Your task to perform on an android device: Go to notification settings Image 0: 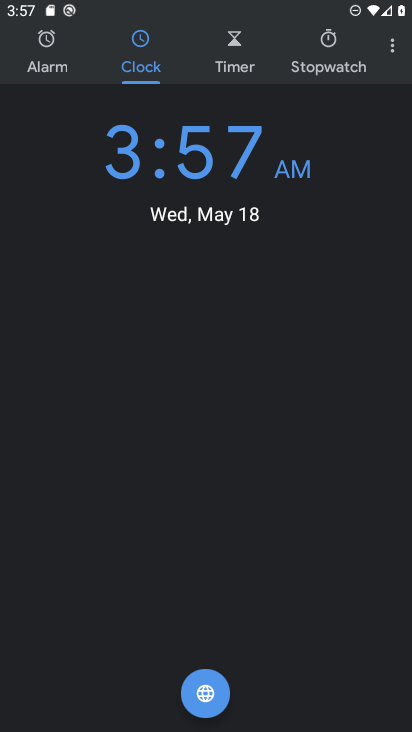
Step 0: press home button
Your task to perform on an android device: Go to notification settings Image 1: 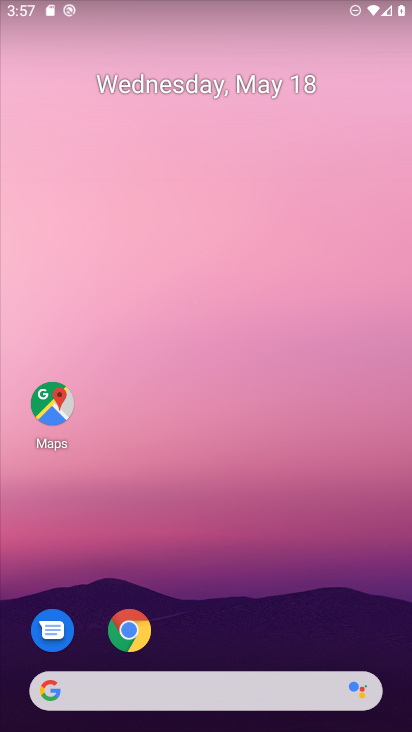
Step 1: drag from (218, 648) to (276, 214)
Your task to perform on an android device: Go to notification settings Image 2: 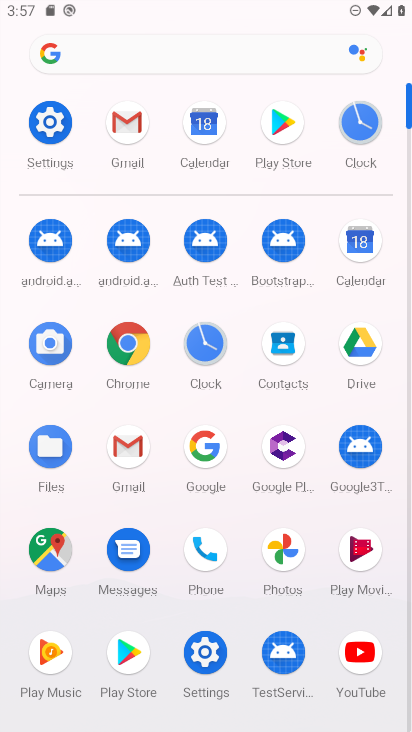
Step 2: click (46, 115)
Your task to perform on an android device: Go to notification settings Image 3: 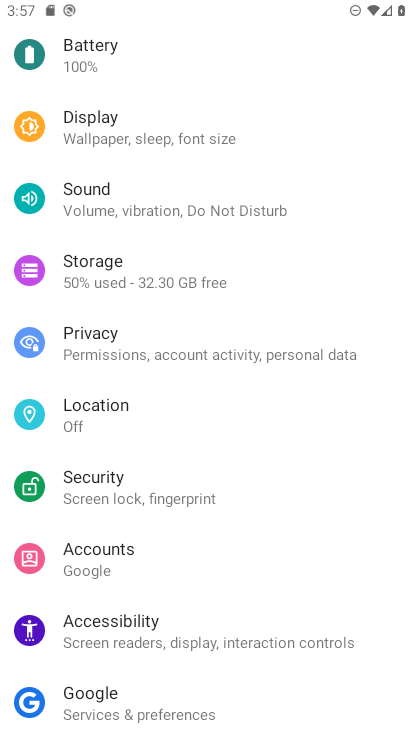
Step 3: drag from (147, 97) to (131, 710)
Your task to perform on an android device: Go to notification settings Image 4: 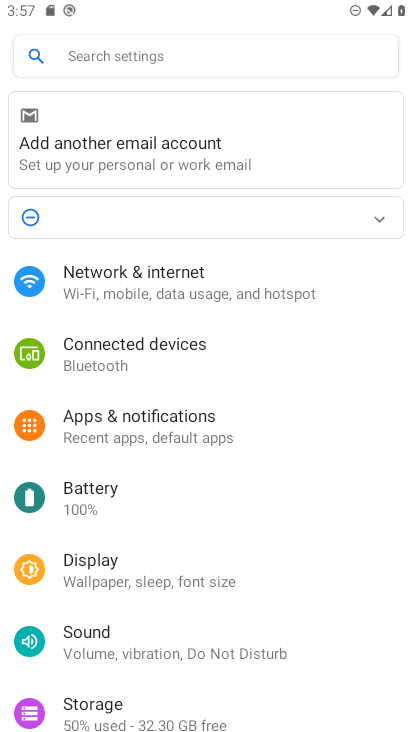
Step 4: click (228, 421)
Your task to perform on an android device: Go to notification settings Image 5: 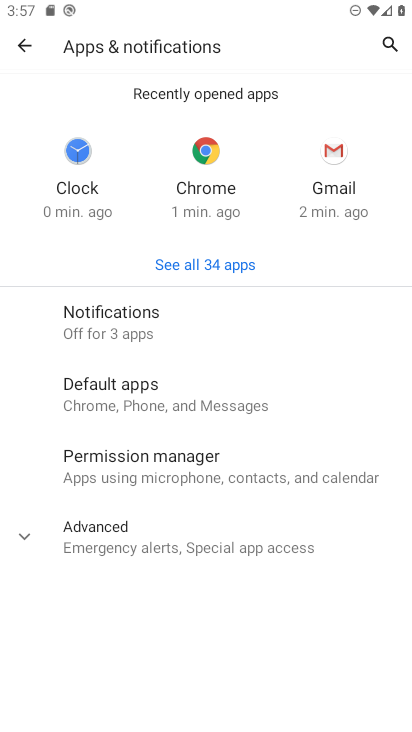
Step 5: click (168, 320)
Your task to perform on an android device: Go to notification settings Image 6: 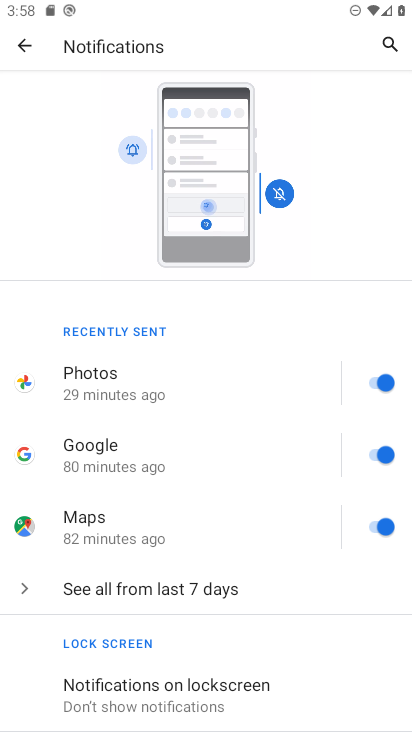
Step 6: drag from (192, 633) to (201, 324)
Your task to perform on an android device: Go to notification settings Image 7: 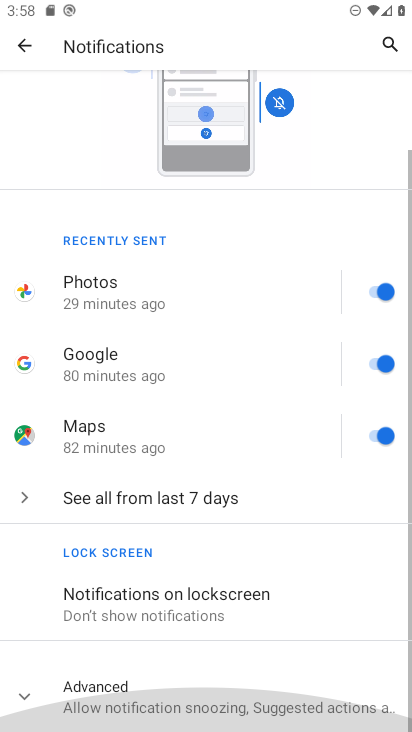
Step 7: click (201, 288)
Your task to perform on an android device: Go to notification settings Image 8: 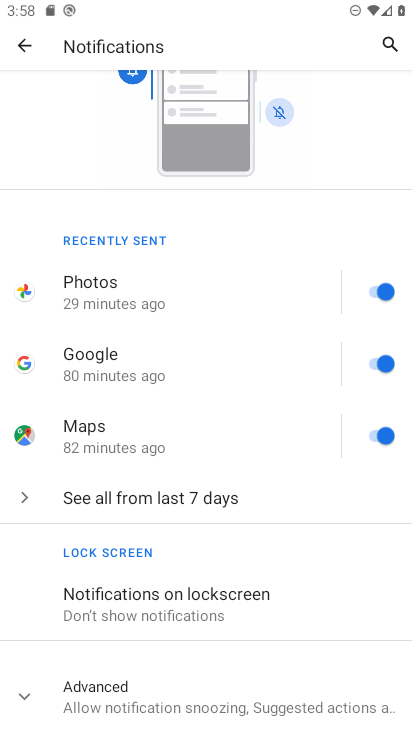
Step 8: click (21, 688)
Your task to perform on an android device: Go to notification settings Image 9: 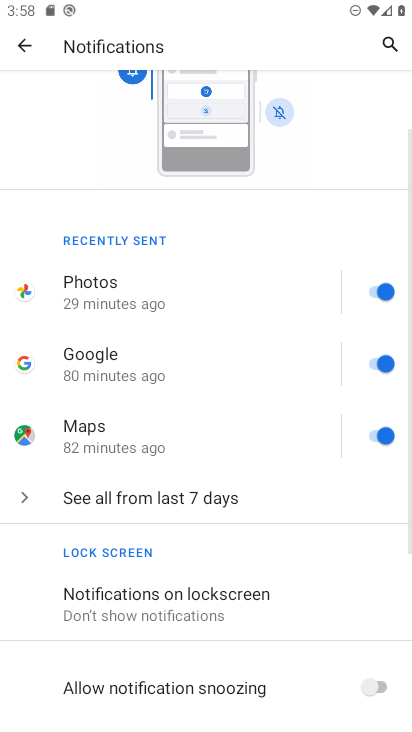
Step 9: drag from (215, 702) to (242, 290)
Your task to perform on an android device: Go to notification settings Image 10: 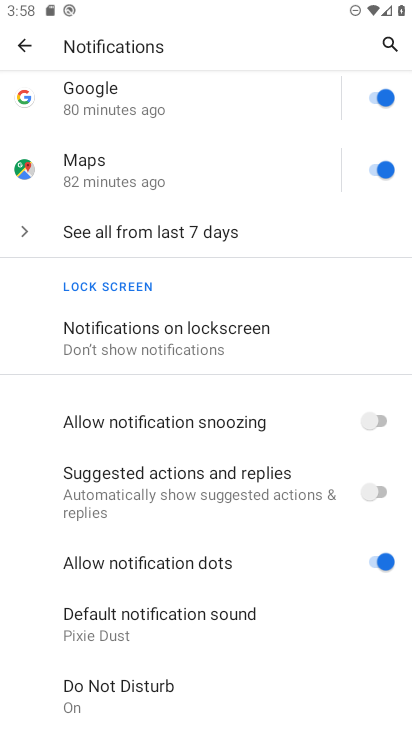
Step 10: drag from (226, 658) to (224, 404)
Your task to perform on an android device: Go to notification settings Image 11: 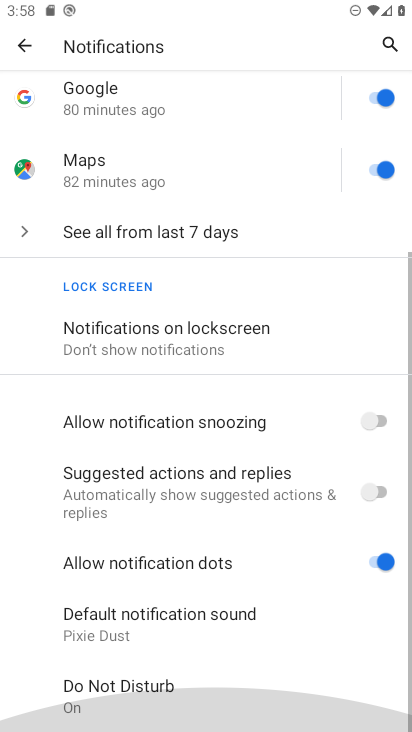
Step 11: click (227, 306)
Your task to perform on an android device: Go to notification settings Image 12: 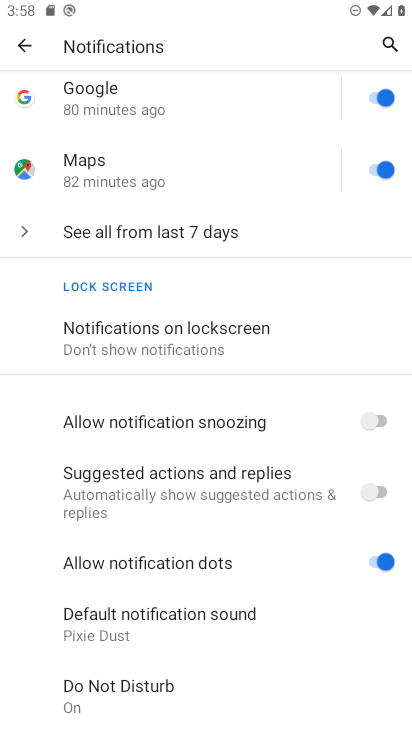
Step 12: task complete